Your task to perform on an android device: Go to Yahoo.com Image 0: 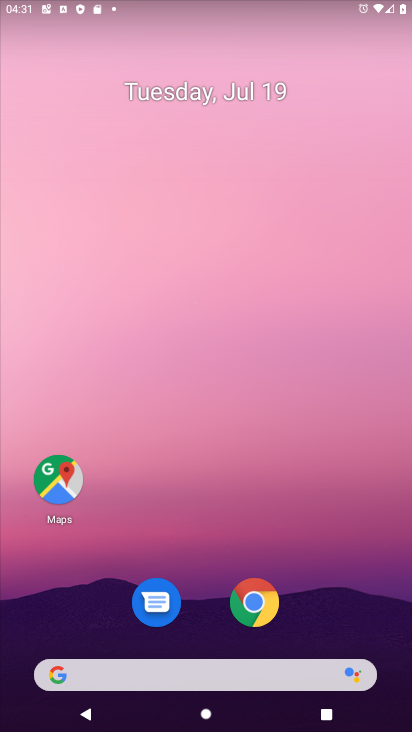
Step 0: click (77, 677)
Your task to perform on an android device: Go to Yahoo.com Image 1: 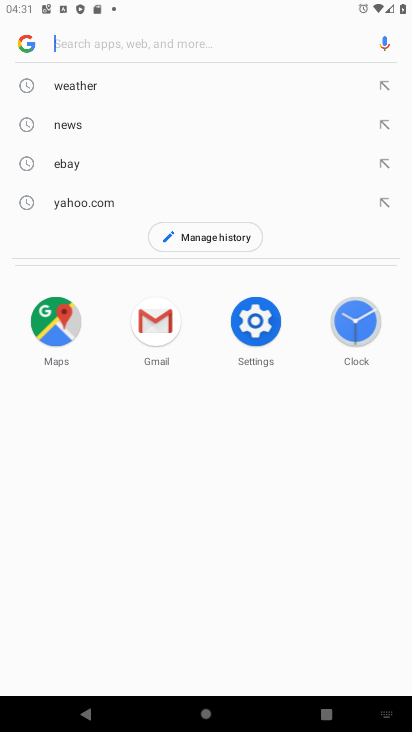
Step 1: click (136, 210)
Your task to perform on an android device: Go to Yahoo.com Image 2: 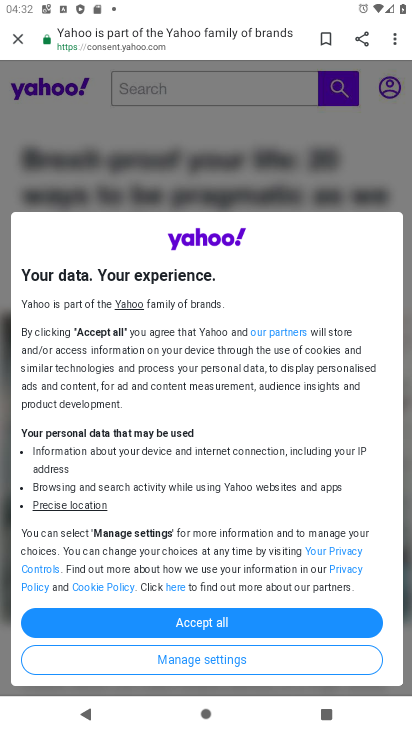
Step 2: task complete